Your task to perform on an android device: choose inbox layout in the gmail app Image 0: 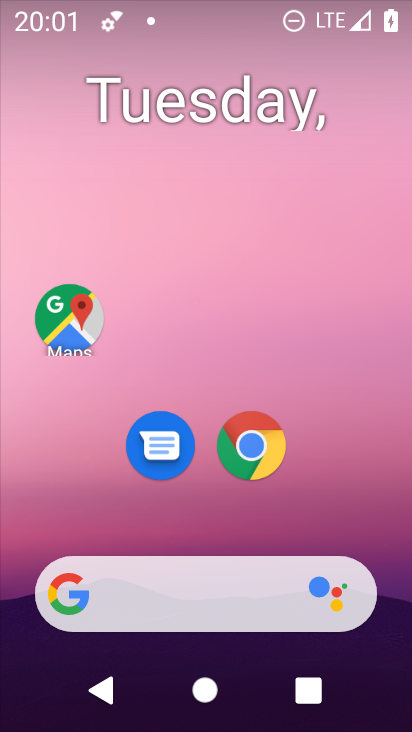
Step 0: drag from (219, 507) to (205, 0)
Your task to perform on an android device: choose inbox layout in the gmail app Image 1: 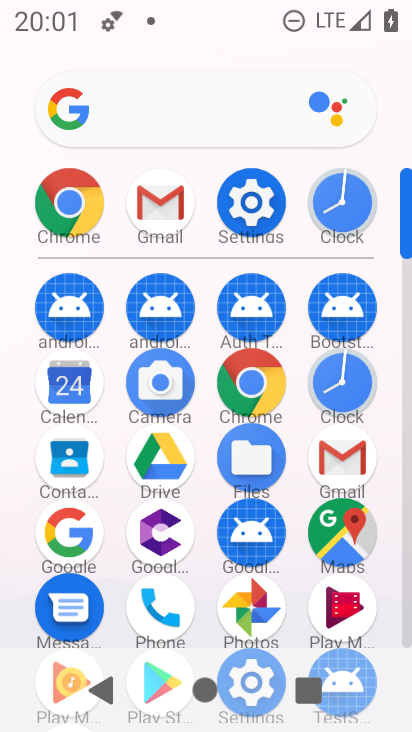
Step 1: click (168, 212)
Your task to perform on an android device: choose inbox layout in the gmail app Image 2: 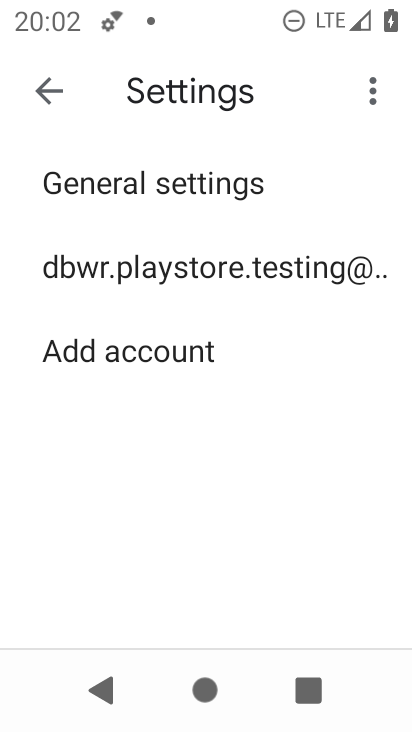
Step 2: click (176, 274)
Your task to perform on an android device: choose inbox layout in the gmail app Image 3: 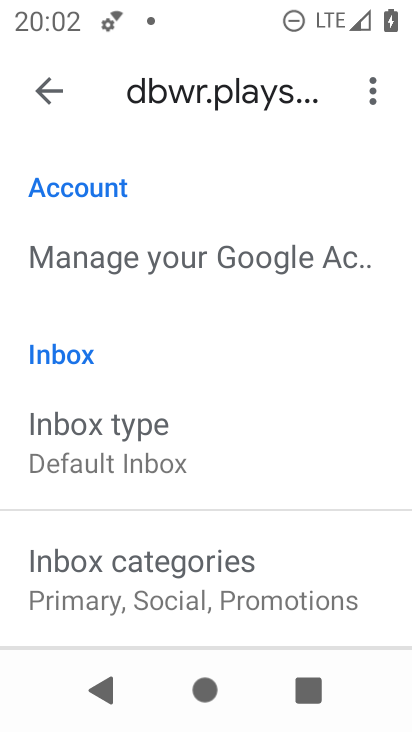
Step 3: click (157, 453)
Your task to perform on an android device: choose inbox layout in the gmail app Image 4: 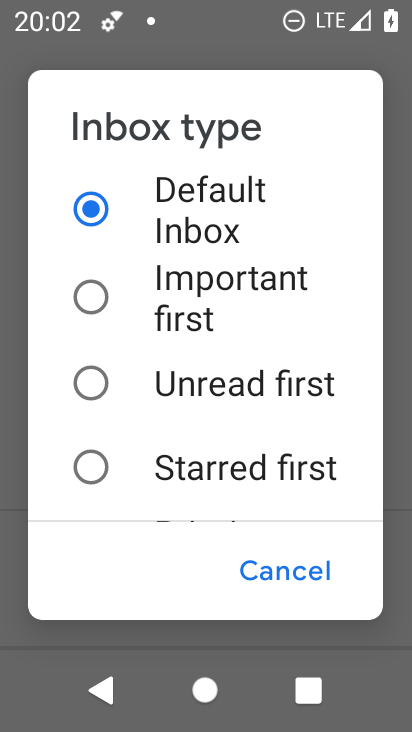
Step 4: drag from (98, 460) to (104, 325)
Your task to perform on an android device: choose inbox layout in the gmail app Image 5: 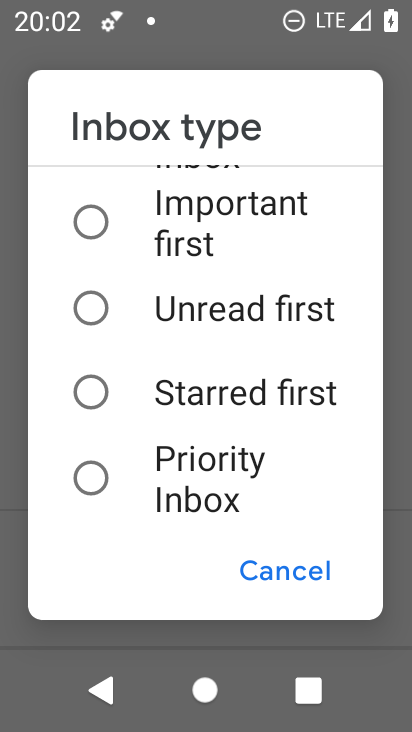
Step 5: click (85, 495)
Your task to perform on an android device: choose inbox layout in the gmail app Image 6: 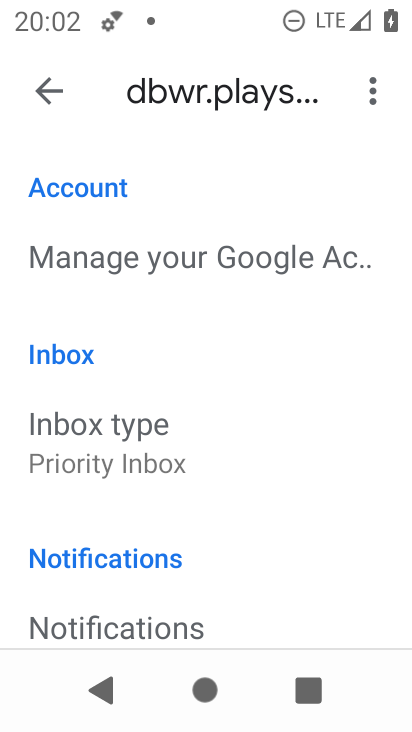
Step 6: task complete